Your task to perform on an android device: Search for a new highlighter Image 0: 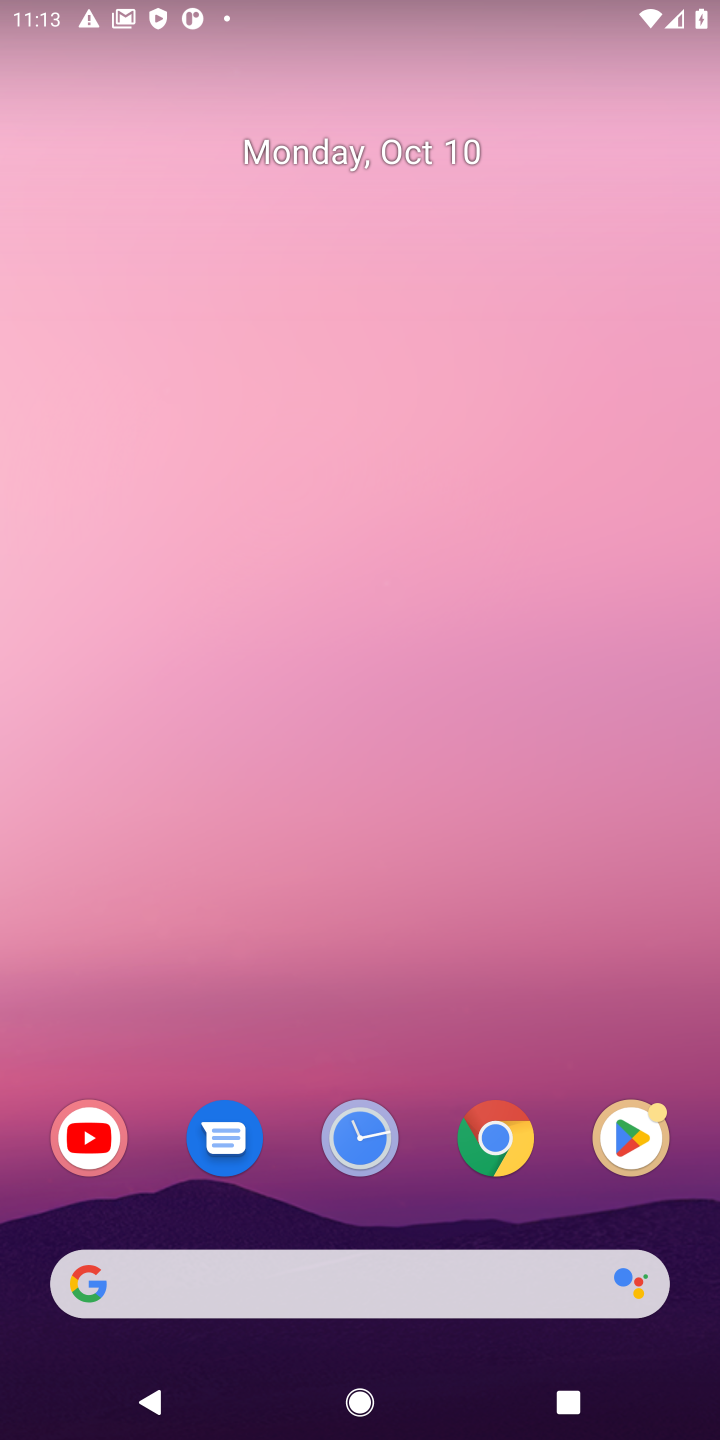
Step 0: press home button
Your task to perform on an android device: Search for a new highlighter Image 1: 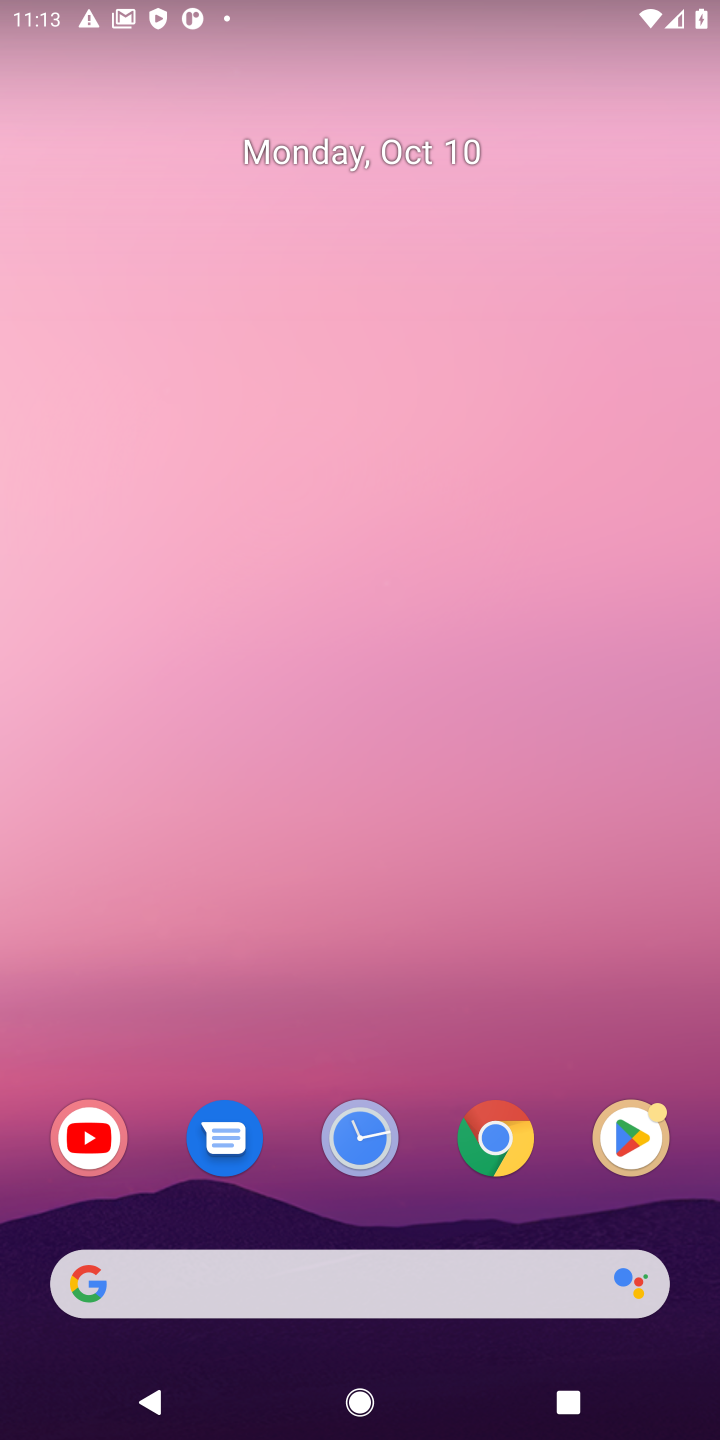
Step 1: click (86, 1288)
Your task to perform on an android device: Search for a new highlighter Image 2: 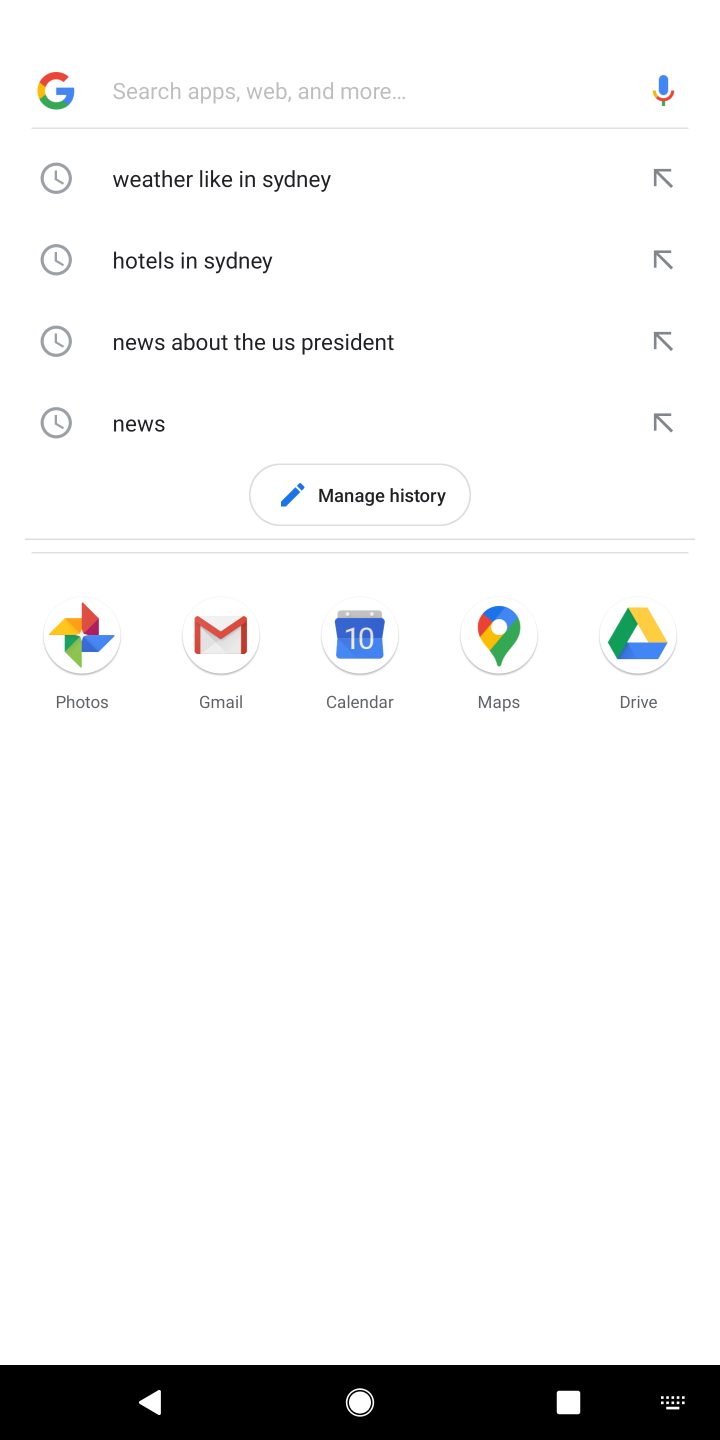
Step 2: type " new highlighter"
Your task to perform on an android device: Search for a new highlighter Image 3: 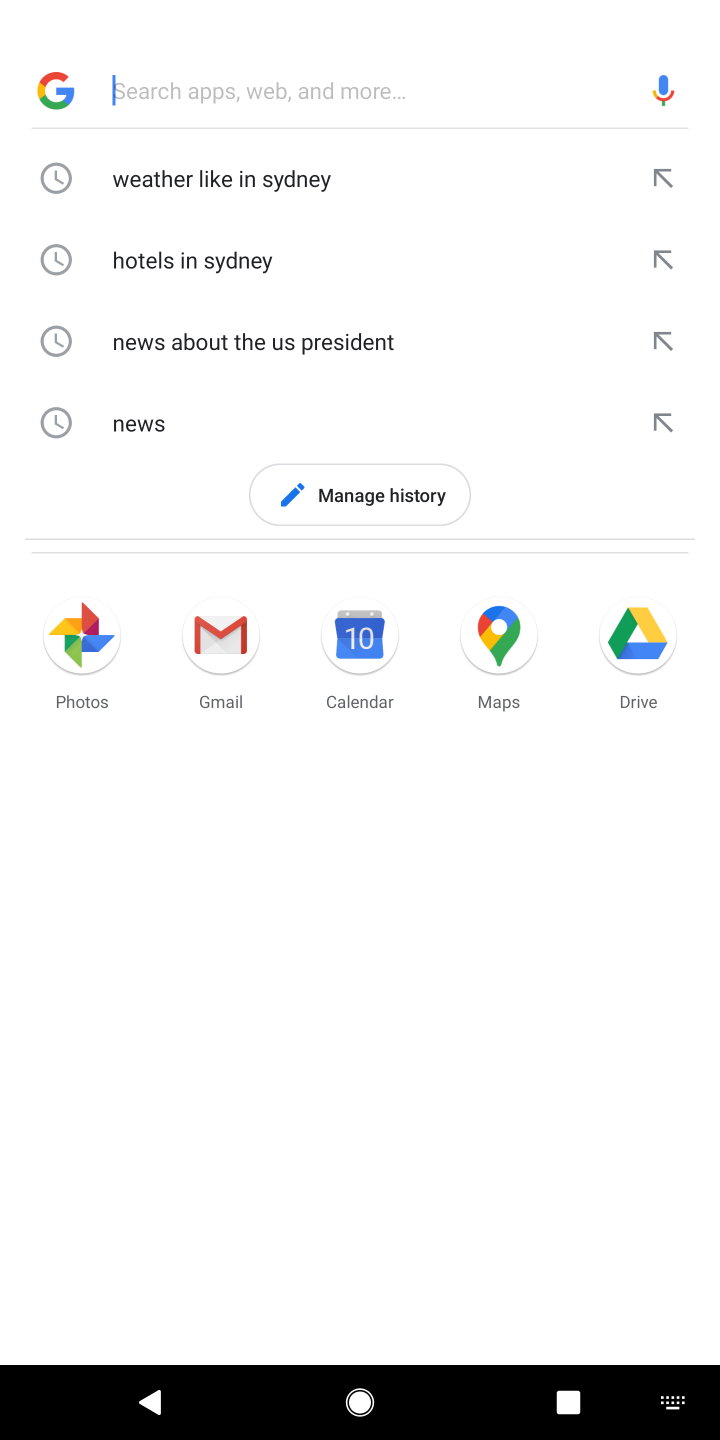
Step 3: click (202, 74)
Your task to perform on an android device: Search for a new highlighter Image 4: 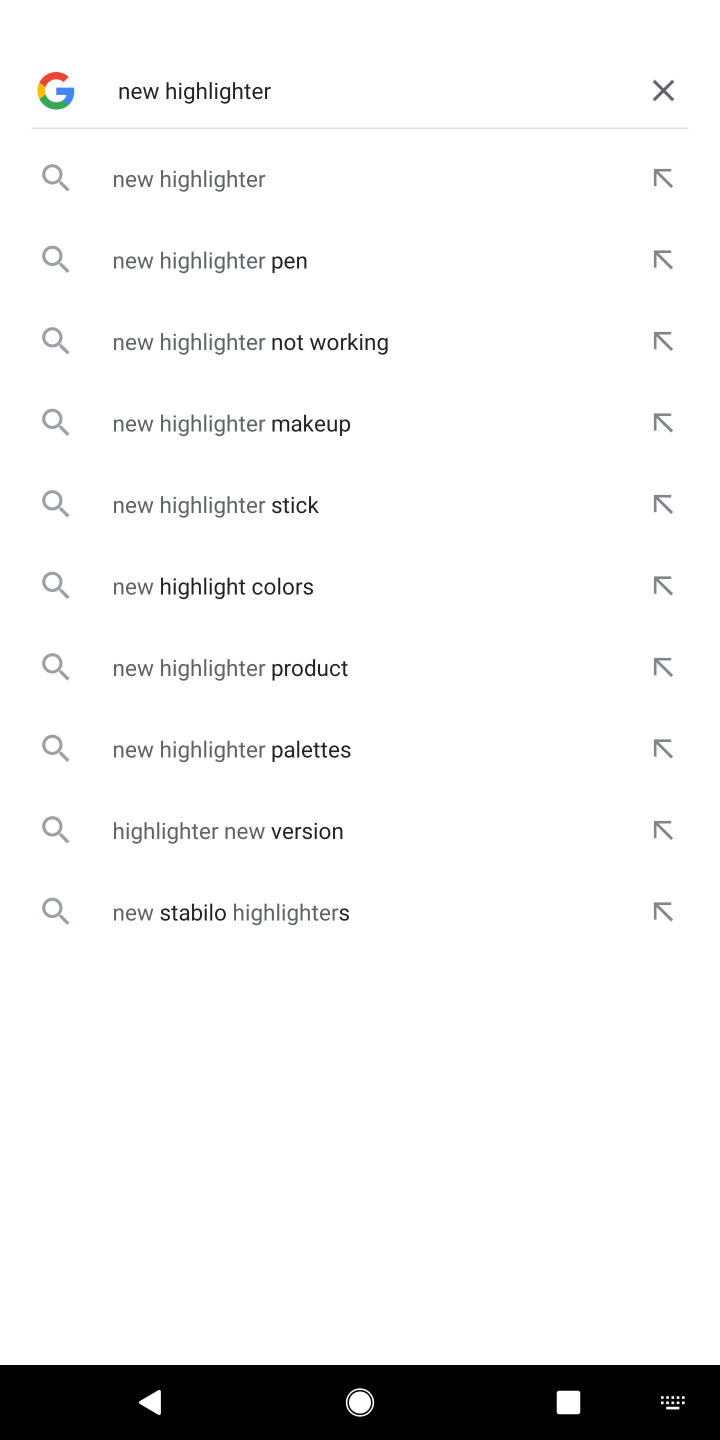
Step 4: click (266, 89)
Your task to perform on an android device: Search for a new highlighter Image 5: 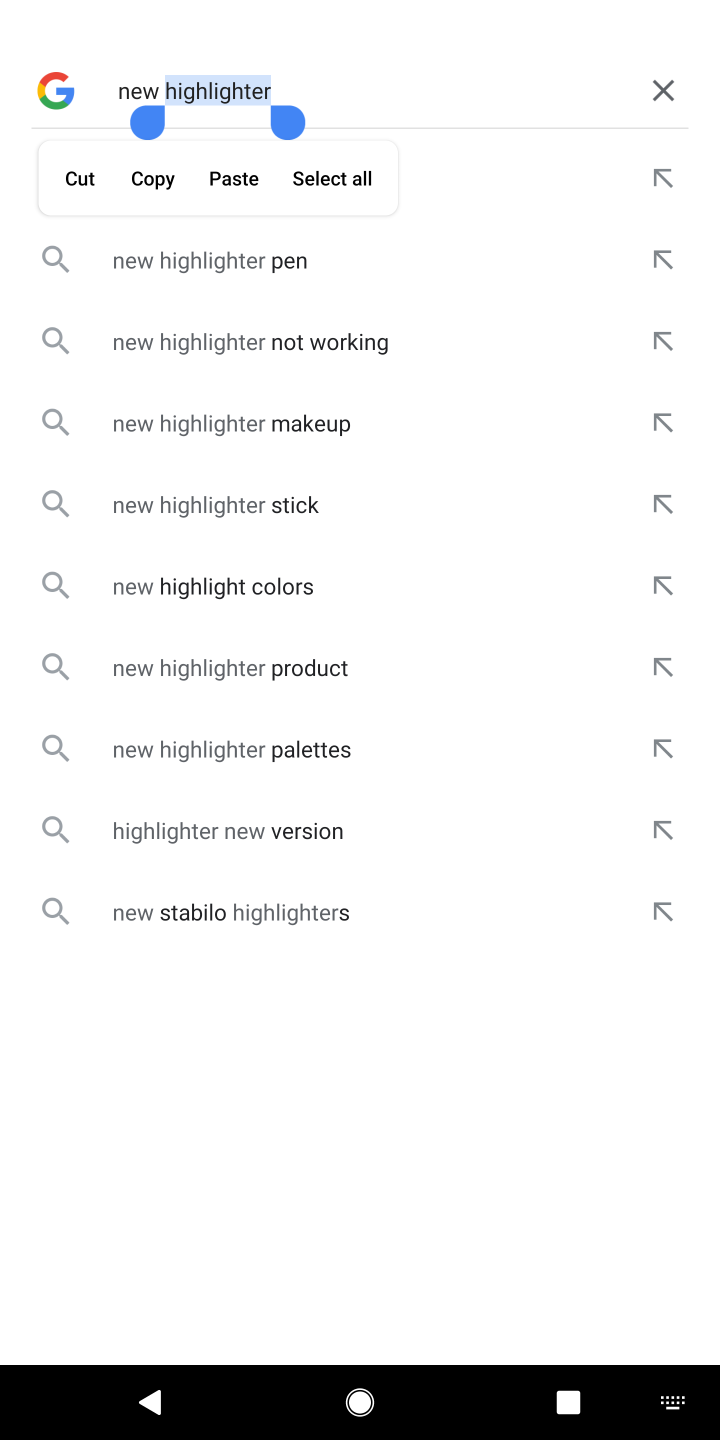
Step 5: press enter
Your task to perform on an android device: Search for a new highlighter Image 6: 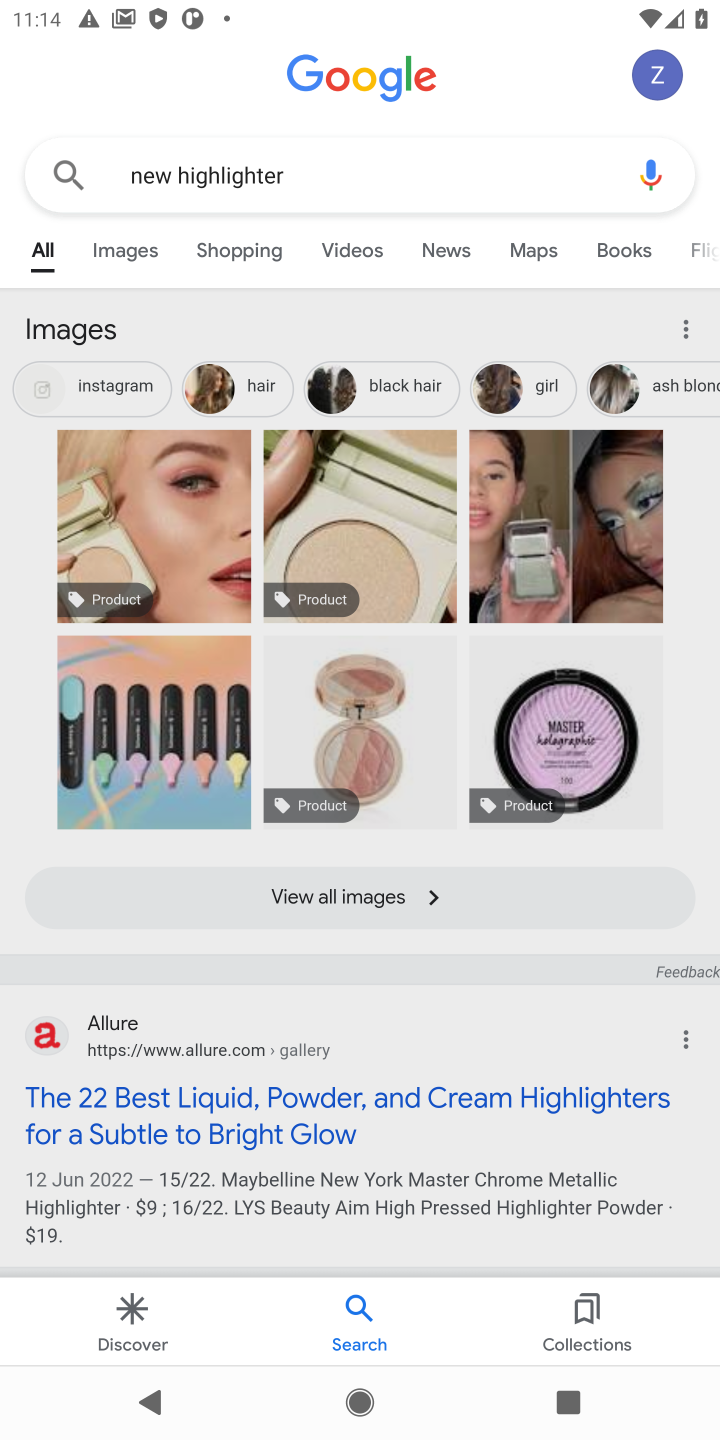
Step 6: task complete